Your task to perform on an android device: toggle airplane mode Image 0: 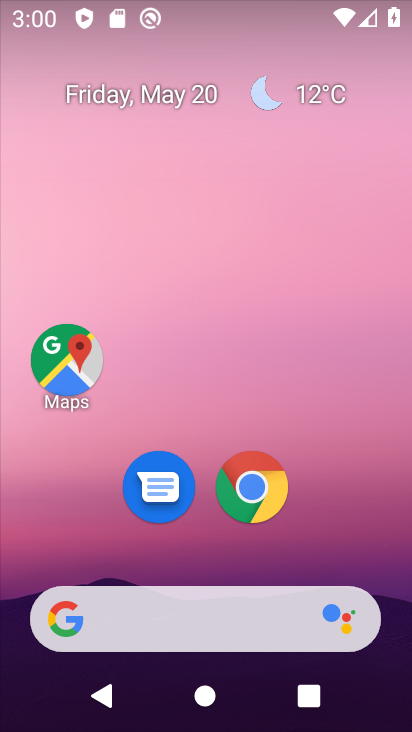
Step 0: drag from (311, 519) to (261, 141)
Your task to perform on an android device: toggle airplane mode Image 1: 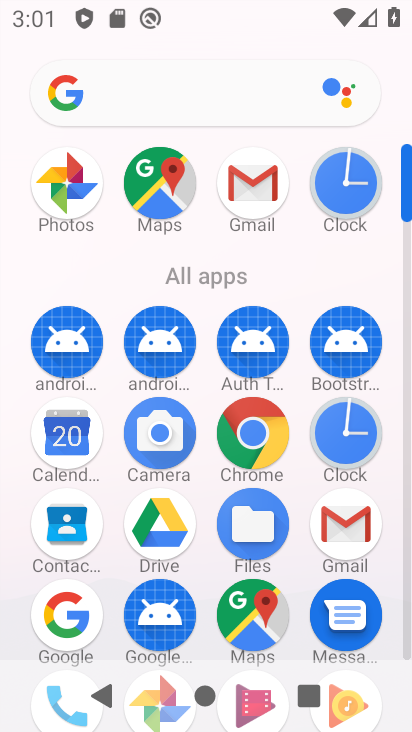
Step 1: drag from (316, 593) to (307, 313)
Your task to perform on an android device: toggle airplane mode Image 2: 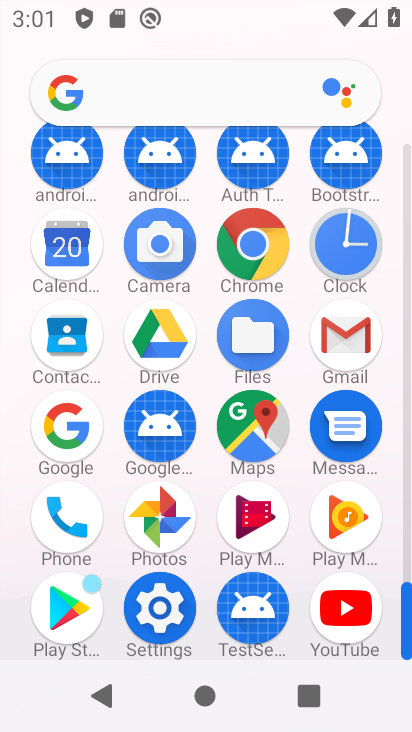
Step 2: click (169, 611)
Your task to perform on an android device: toggle airplane mode Image 3: 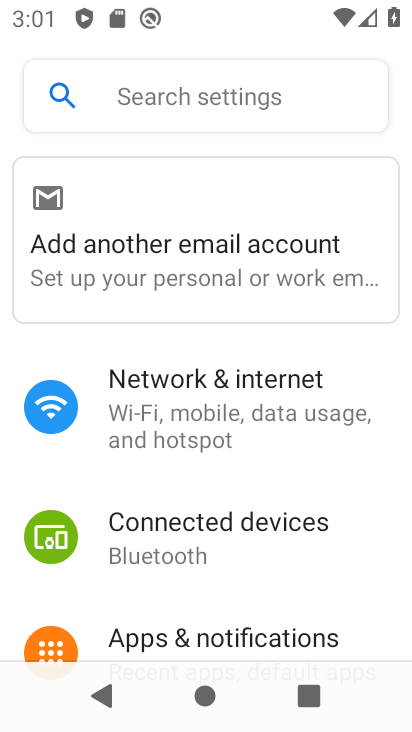
Step 3: click (209, 448)
Your task to perform on an android device: toggle airplane mode Image 4: 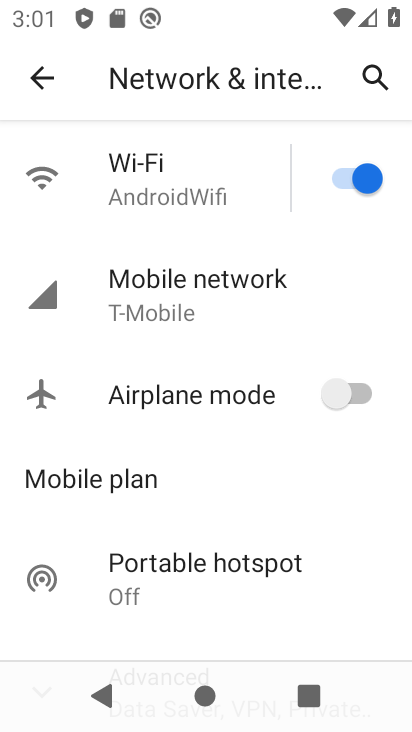
Step 4: click (359, 394)
Your task to perform on an android device: toggle airplane mode Image 5: 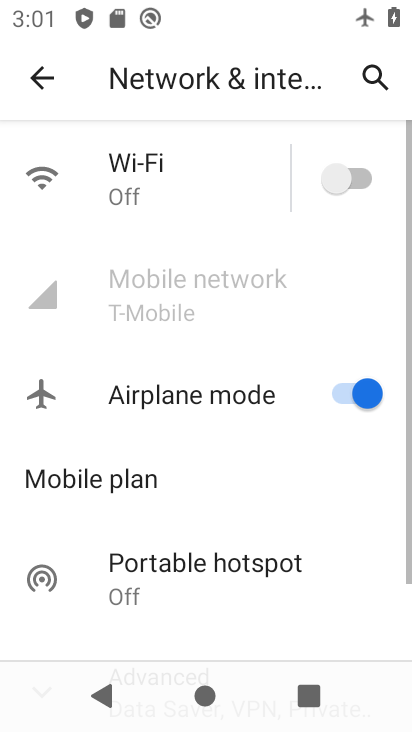
Step 5: task complete